Your task to perform on an android device: turn on airplane mode Image 0: 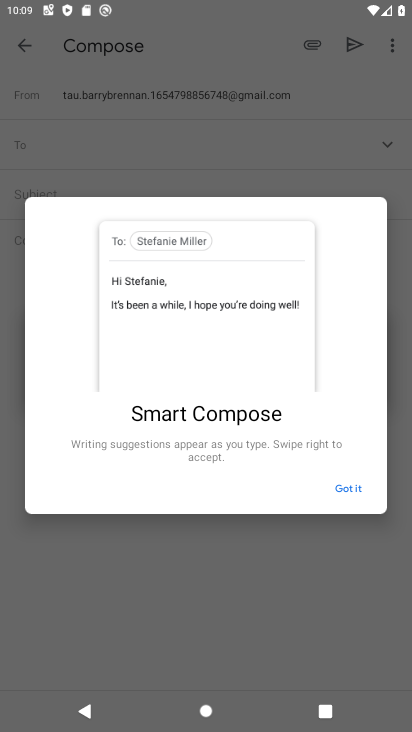
Step 0: press home button
Your task to perform on an android device: turn on airplane mode Image 1: 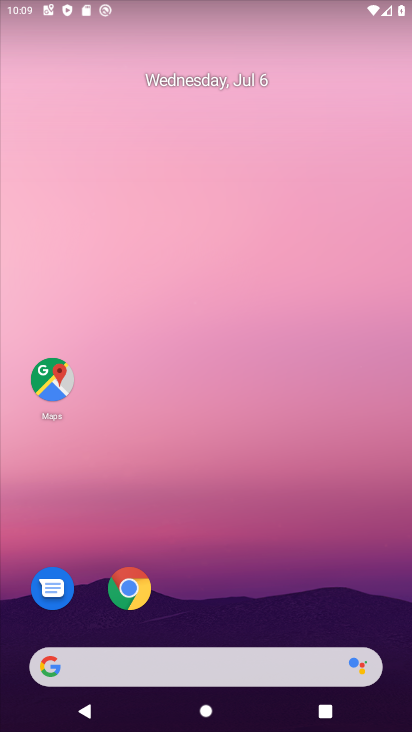
Step 1: drag from (302, 586) to (318, 231)
Your task to perform on an android device: turn on airplane mode Image 2: 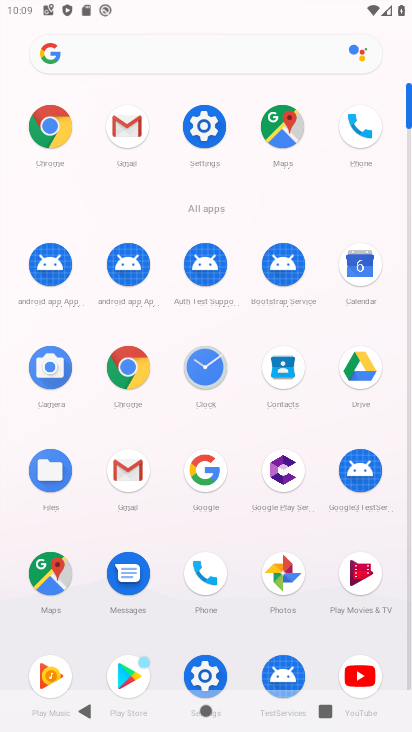
Step 2: click (212, 121)
Your task to perform on an android device: turn on airplane mode Image 3: 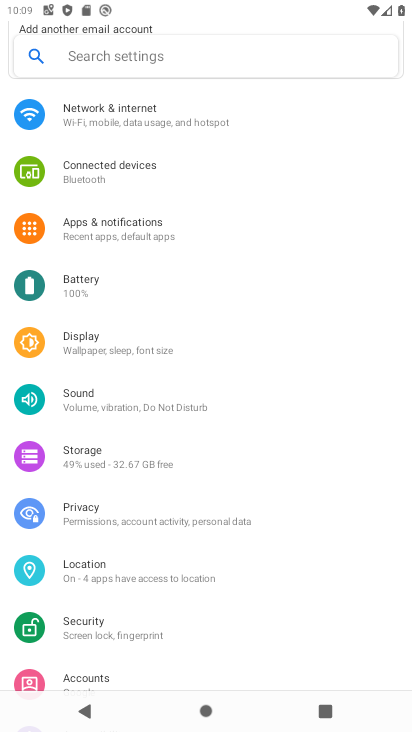
Step 3: drag from (193, 121) to (270, 649)
Your task to perform on an android device: turn on airplane mode Image 4: 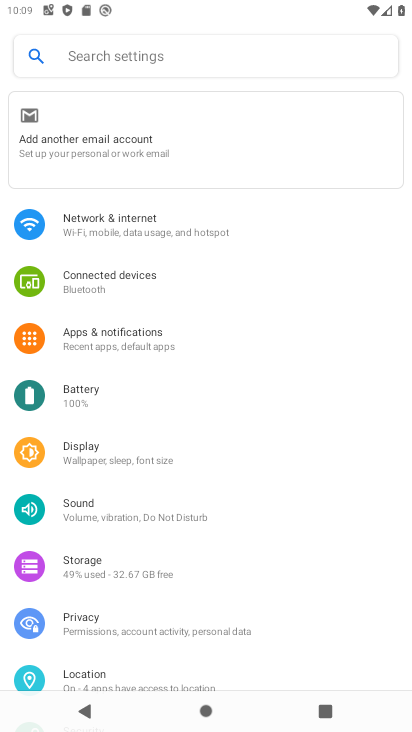
Step 4: click (175, 208)
Your task to perform on an android device: turn on airplane mode Image 5: 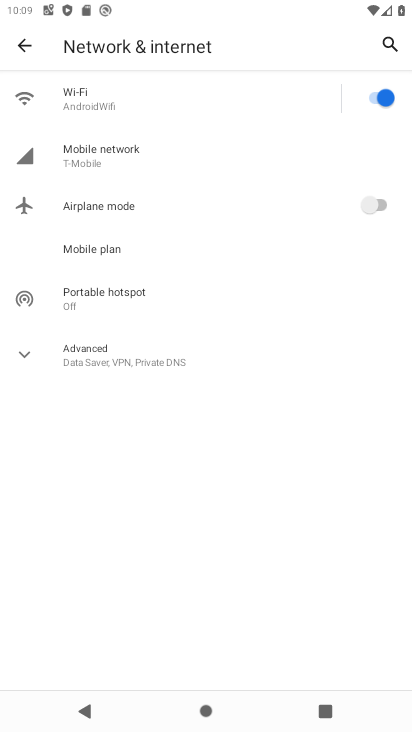
Step 5: click (384, 202)
Your task to perform on an android device: turn on airplane mode Image 6: 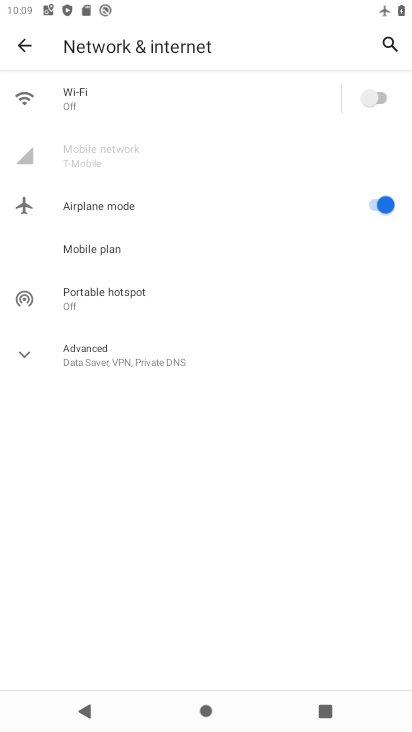
Step 6: task complete